Your task to perform on an android device: star an email in the gmail app Image 0: 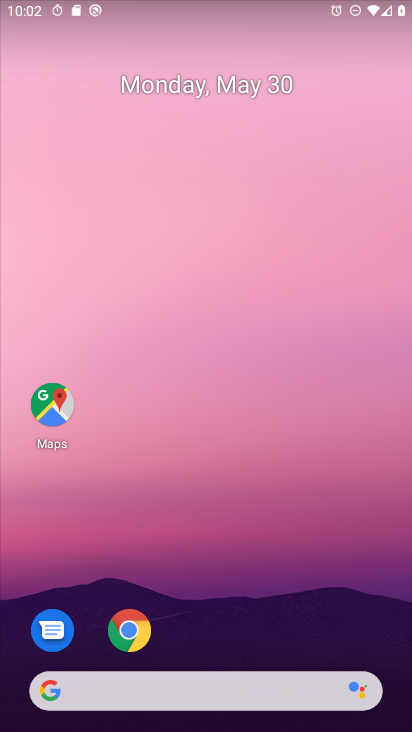
Step 0: drag from (380, 611) to (286, 63)
Your task to perform on an android device: star an email in the gmail app Image 1: 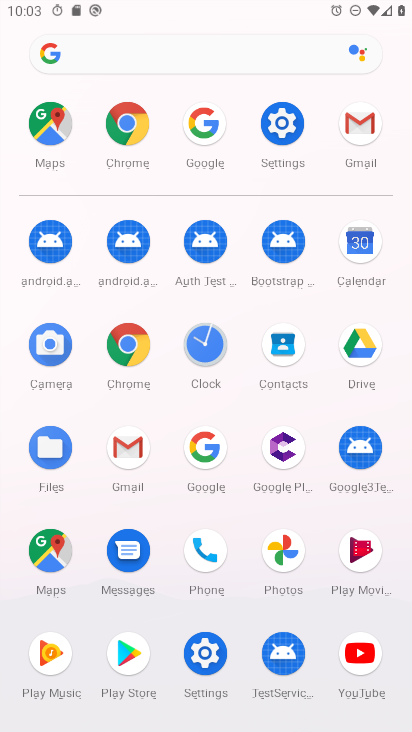
Step 1: click (120, 452)
Your task to perform on an android device: star an email in the gmail app Image 2: 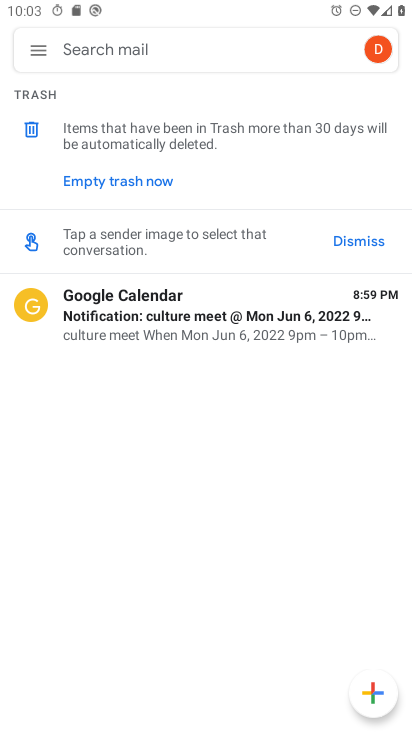
Step 2: click (37, 59)
Your task to perform on an android device: star an email in the gmail app Image 3: 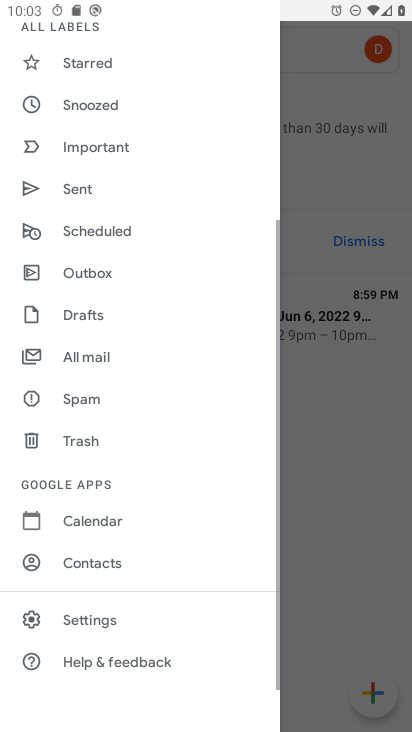
Step 3: drag from (71, 78) to (77, 623)
Your task to perform on an android device: star an email in the gmail app Image 4: 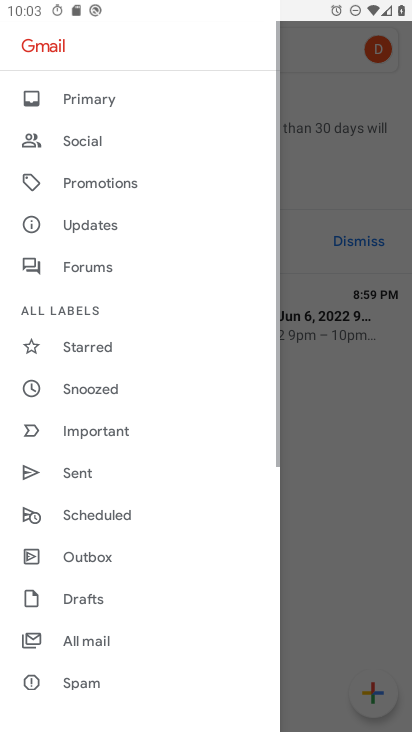
Step 4: click (144, 93)
Your task to perform on an android device: star an email in the gmail app Image 5: 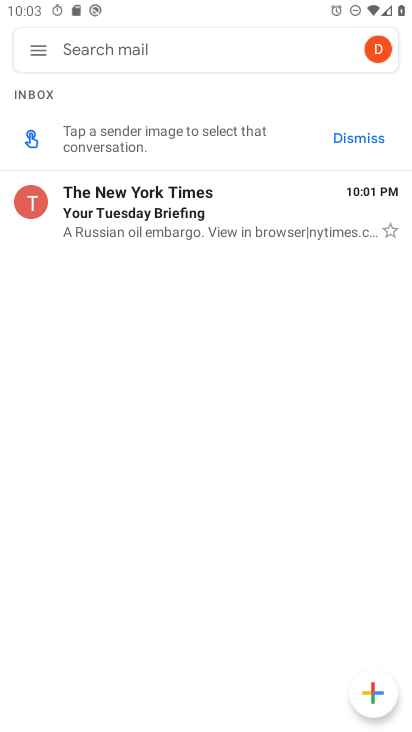
Step 5: click (390, 230)
Your task to perform on an android device: star an email in the gmail app Image 6: 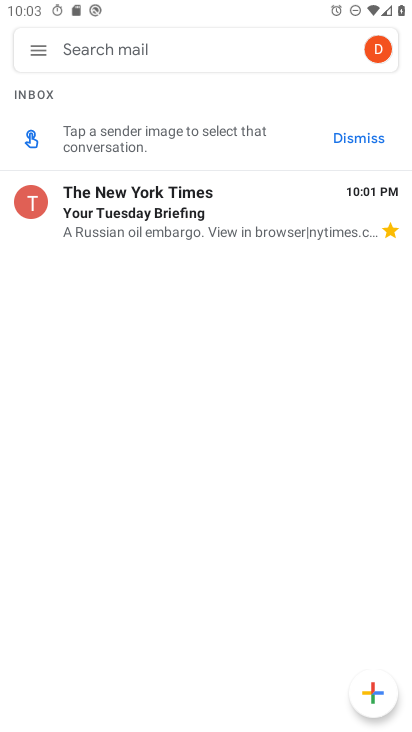
Step 6: task complete